Your task to perform on an android device: check out phone information Image 0: 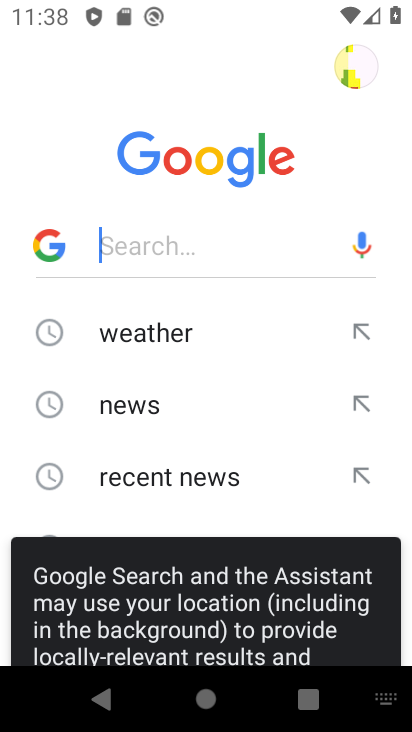
Step 0: press home button
Your task to perform on an android device: check out phone information Image 1: 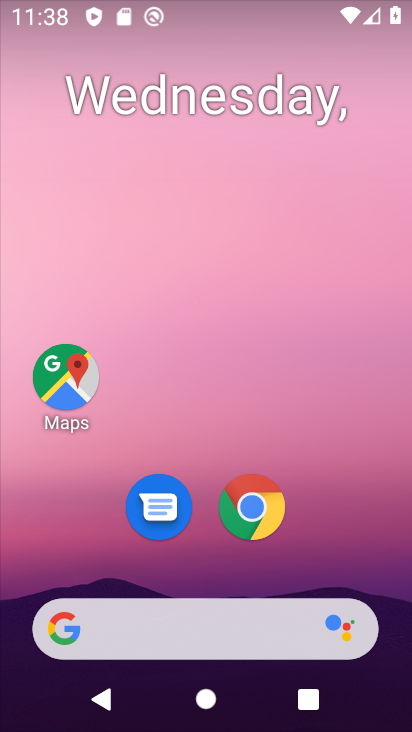
Step 1: drag from (232, 514) to (107, 141)
Your task to perform on an android device: check out phone information Image 2: 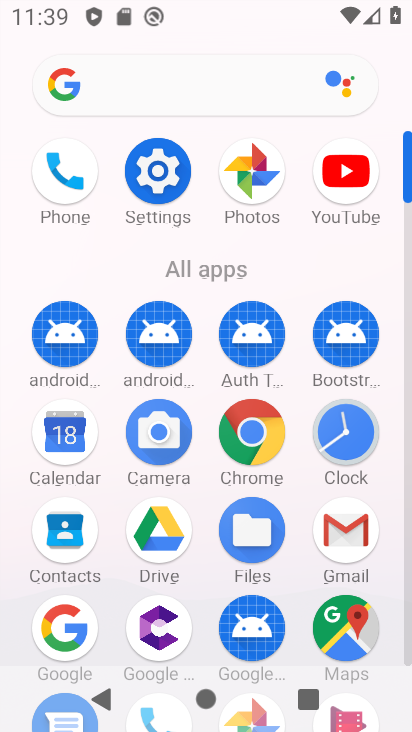
Step 2: click (153, 180)
Your task to perform on an android device: check out phone information Image 3: 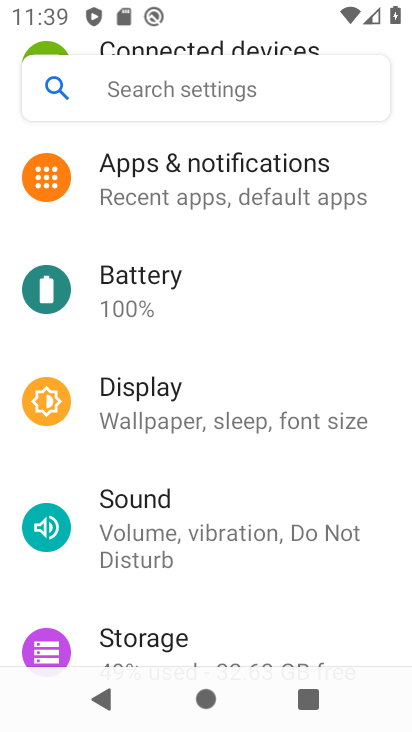
Step 3: drag from (230, 571) to (218, 181)
Your task to perform on an android device: check out phone information Image 4: 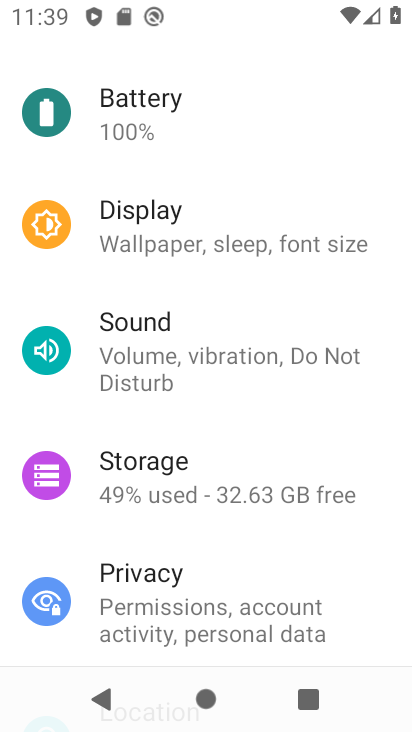
Step 4: drag from (196, 473) to (145, 184)
Your task to perform on an android device: check out phone information Image 5: 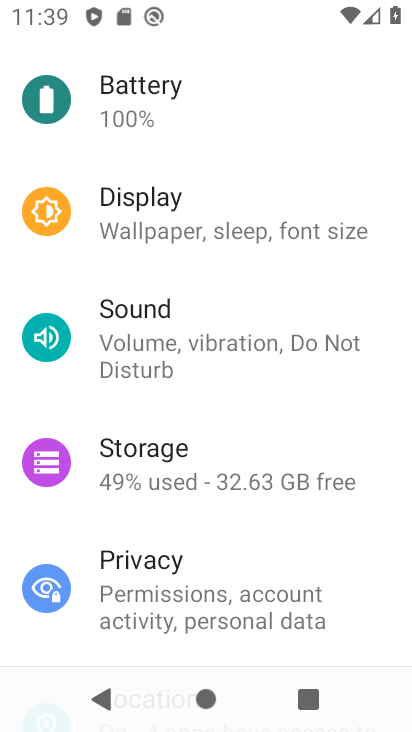
Step 5: drag from (141, 567) to (112, 194)
Your task to perform on an android device: check out phone information Image 6: 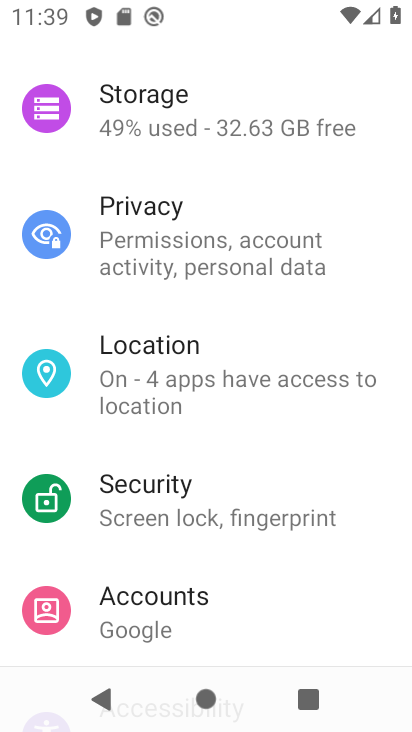
Step 6: drag from (205, 623) to (166, 164)
Your task to perform on an android device: check out phone information Image 7: 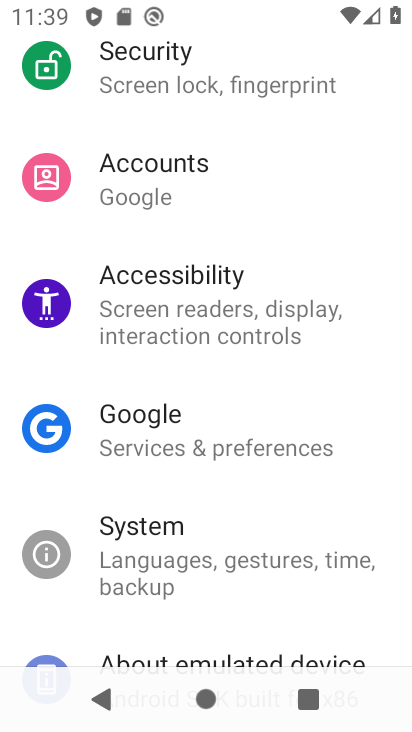
Step 7: drag from (217, 564) to (194, 122)
Your task to perform on an android device: check out phone information Image 8: 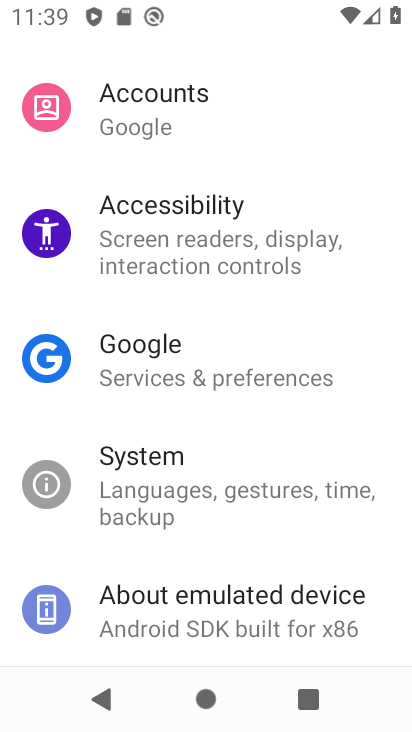
Step 8: click (190, 615)
Your task to perform on an android device: check out phone information Image 9: 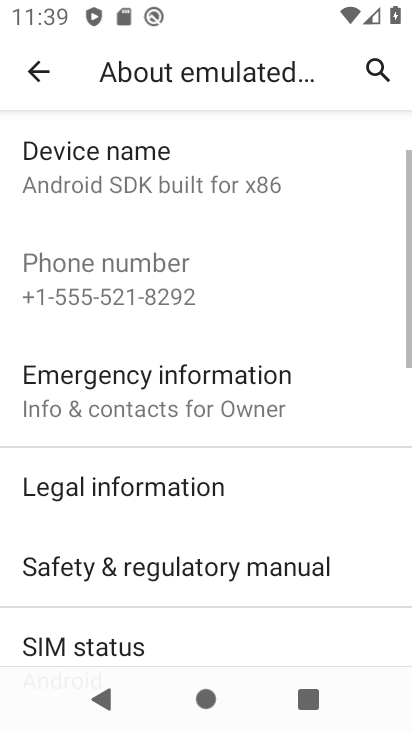
Step 9: task complete